Your task to perform on an android device: set the stopwatch Image 0: 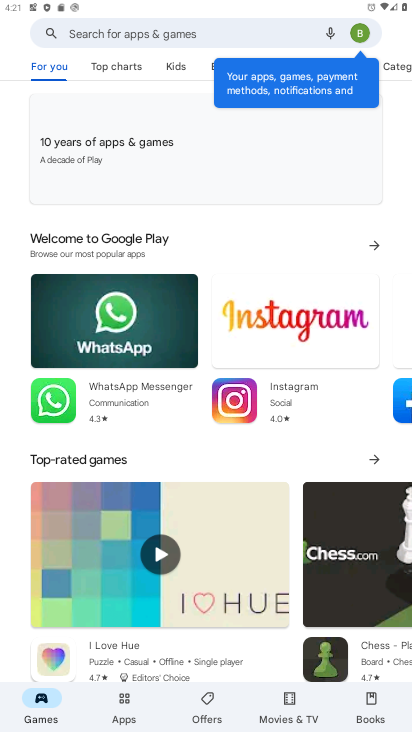
Step 0: press home button
Your task to perform on an android device: set the stopwatch Image 1: 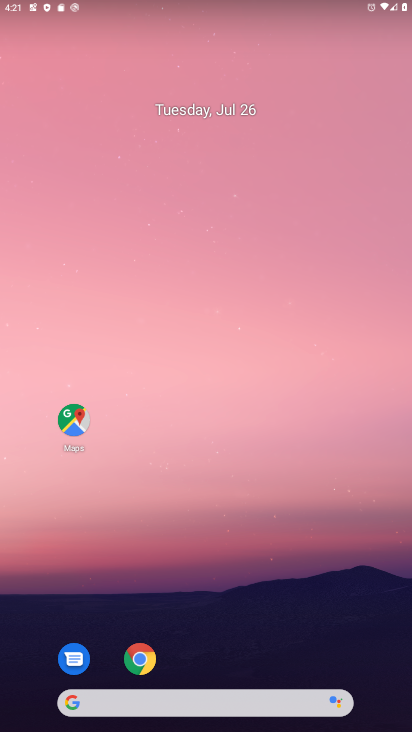
Step 1: drag from (228, 670) to (252, 189)
Your task to perform on an android device: set the stopwatch Image 2: 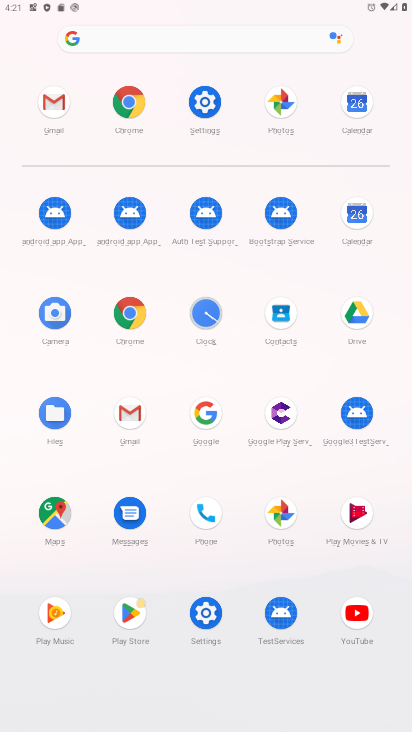
Step 2: click (205, 315)
Your task to perform on an android device: set the stopwatch Image 3: 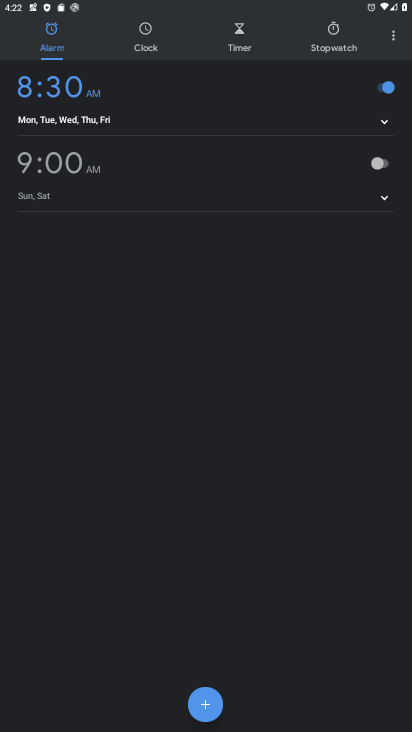
Step 3: click (340, 40)
Your task to perform on an android device: set the stopwatch Image 4: 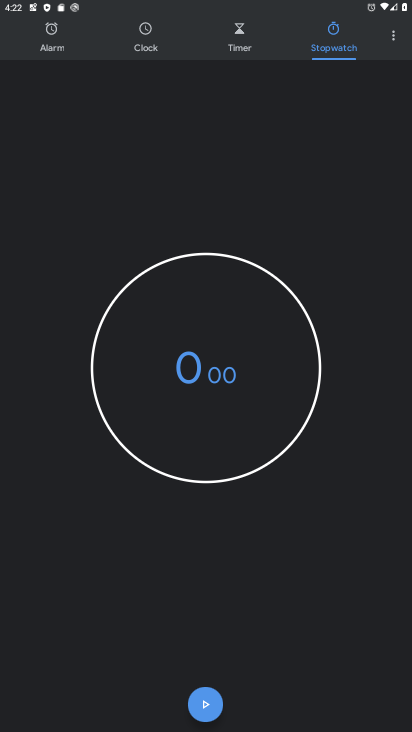
Step 4: click (207, 707)
Your task to perform on an android device: set the stopwatch Image 5: 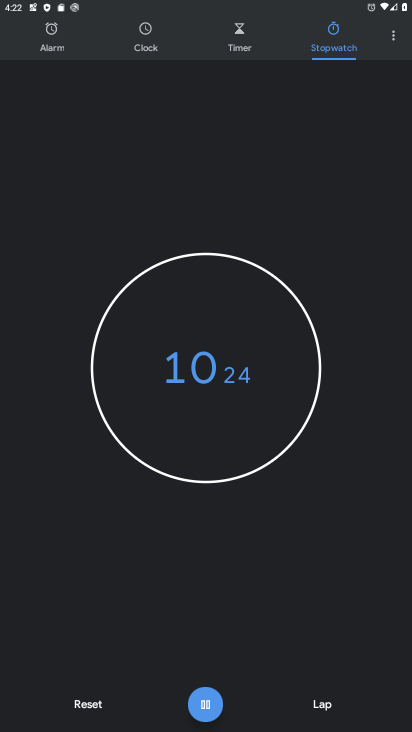
Step 5: task complete